Your task to perform on an android device: Go to internet settings Image 0: 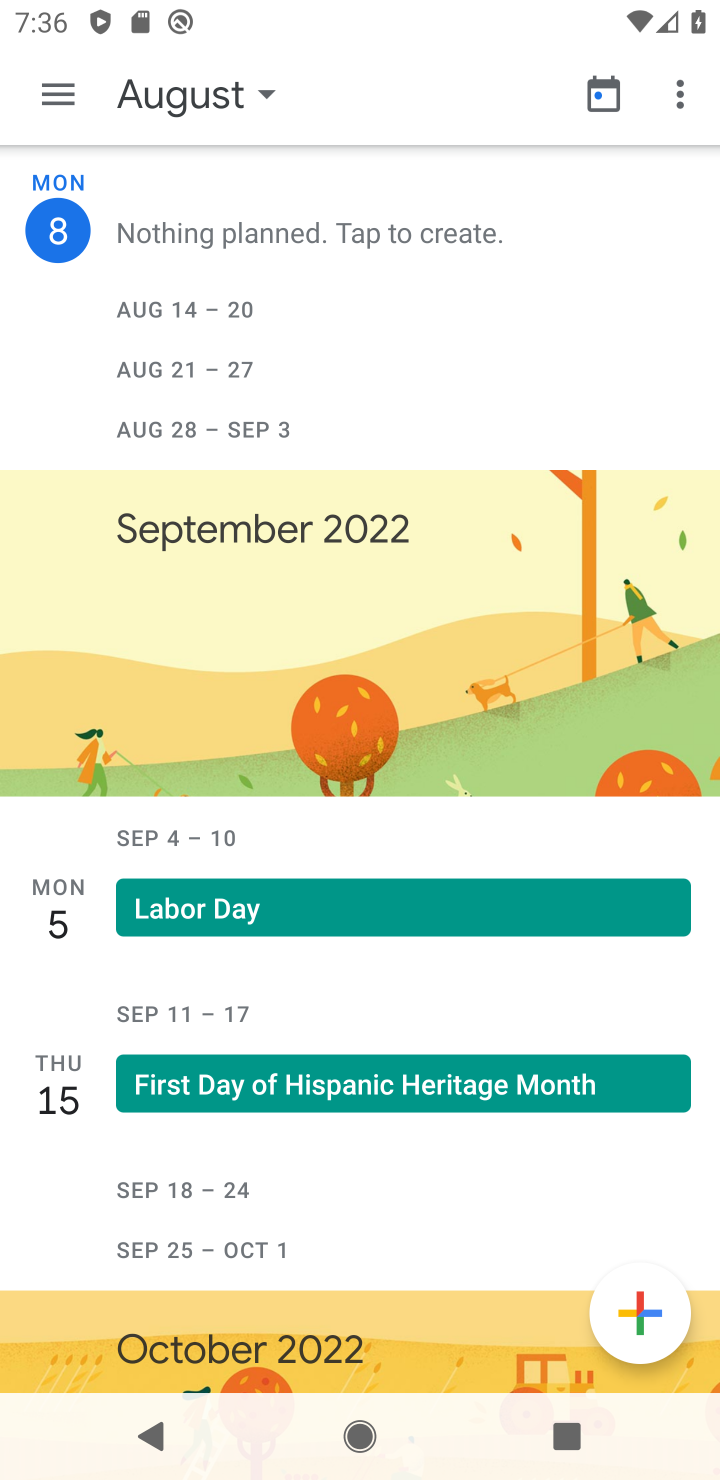
Step 0: press home button
Your task to perform on an android device: Go to internet settings Image 1: 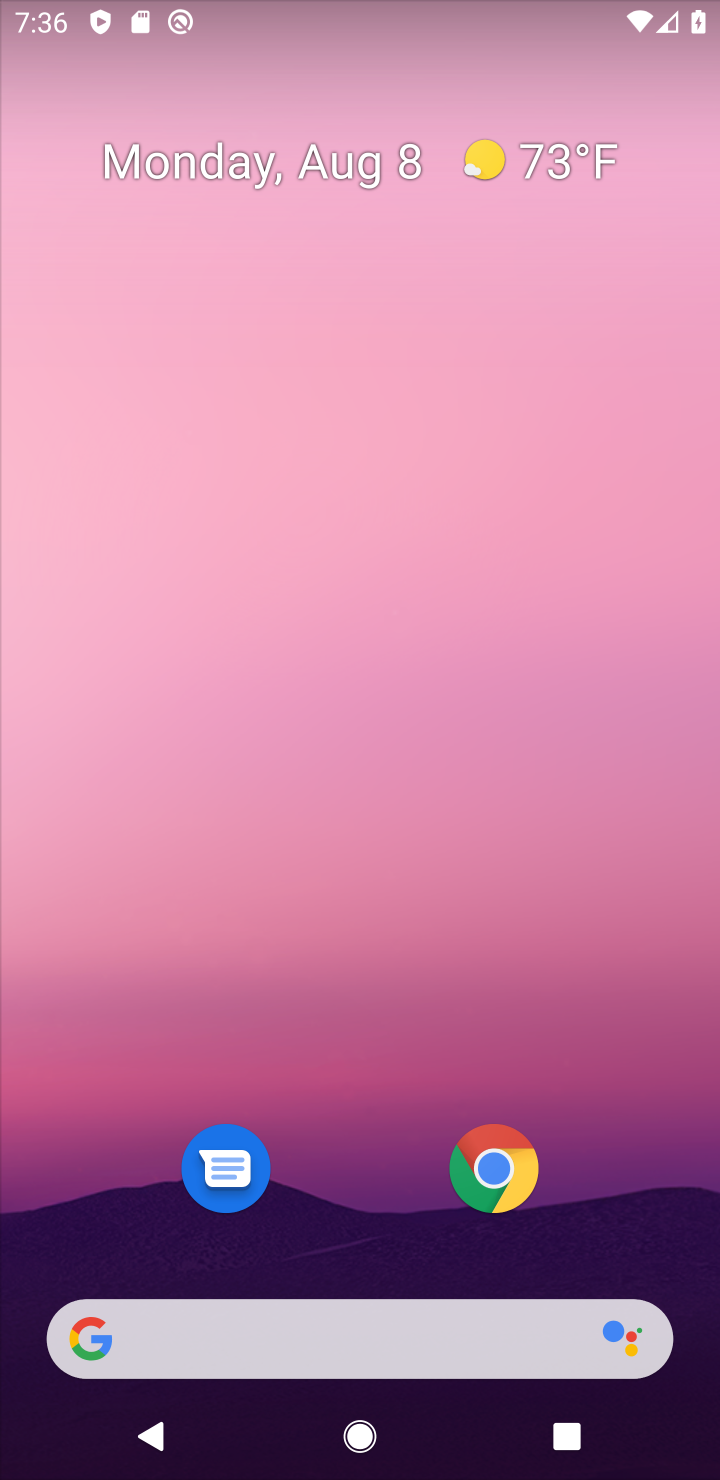
Step 1: drag from (301, 1331) to (506, 63)
Your task to perform on an android device: Go to internet settings Image 2: 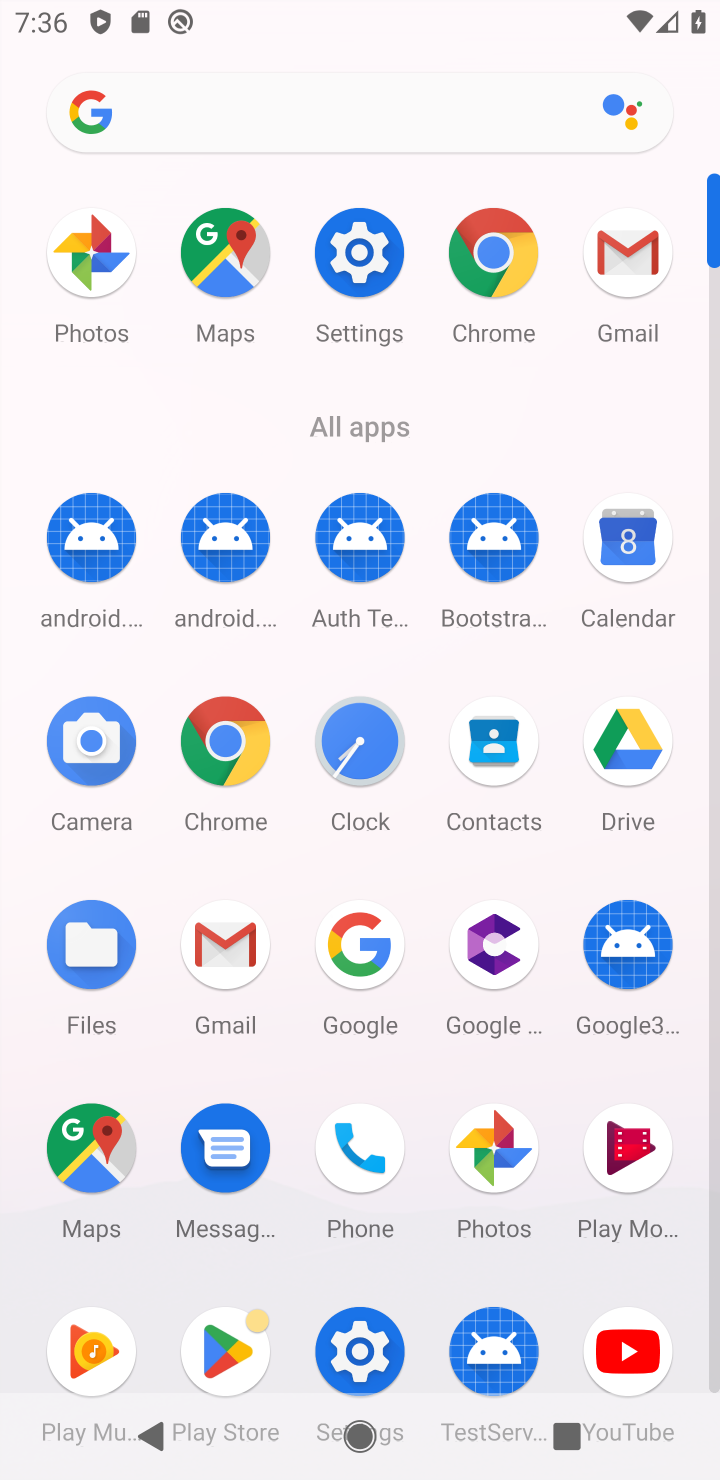
Step 2: click (352, 245)
Your task to perform on an android device: Go to internet settings Image 3: 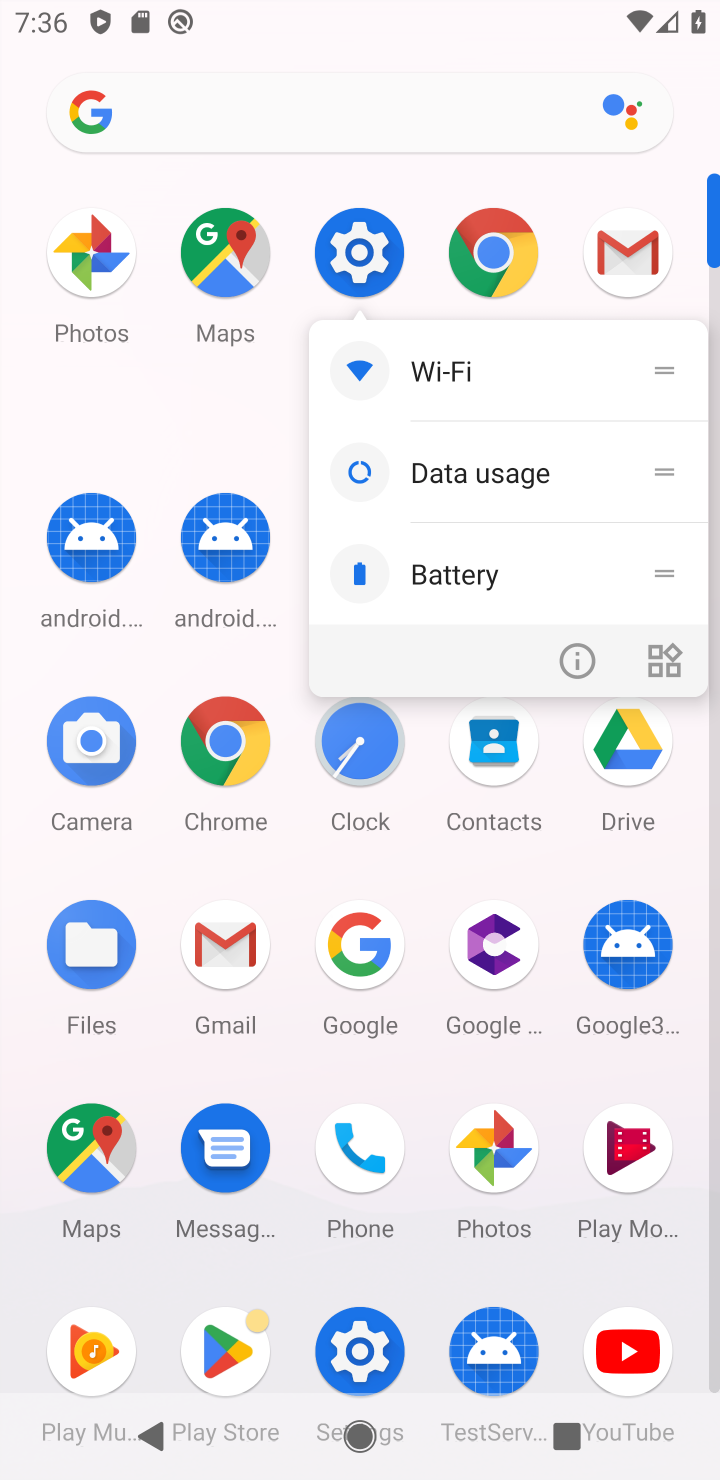
Step 3: click (359, 248)
Your task to perform on an android device: Go to internet settings Image 4: 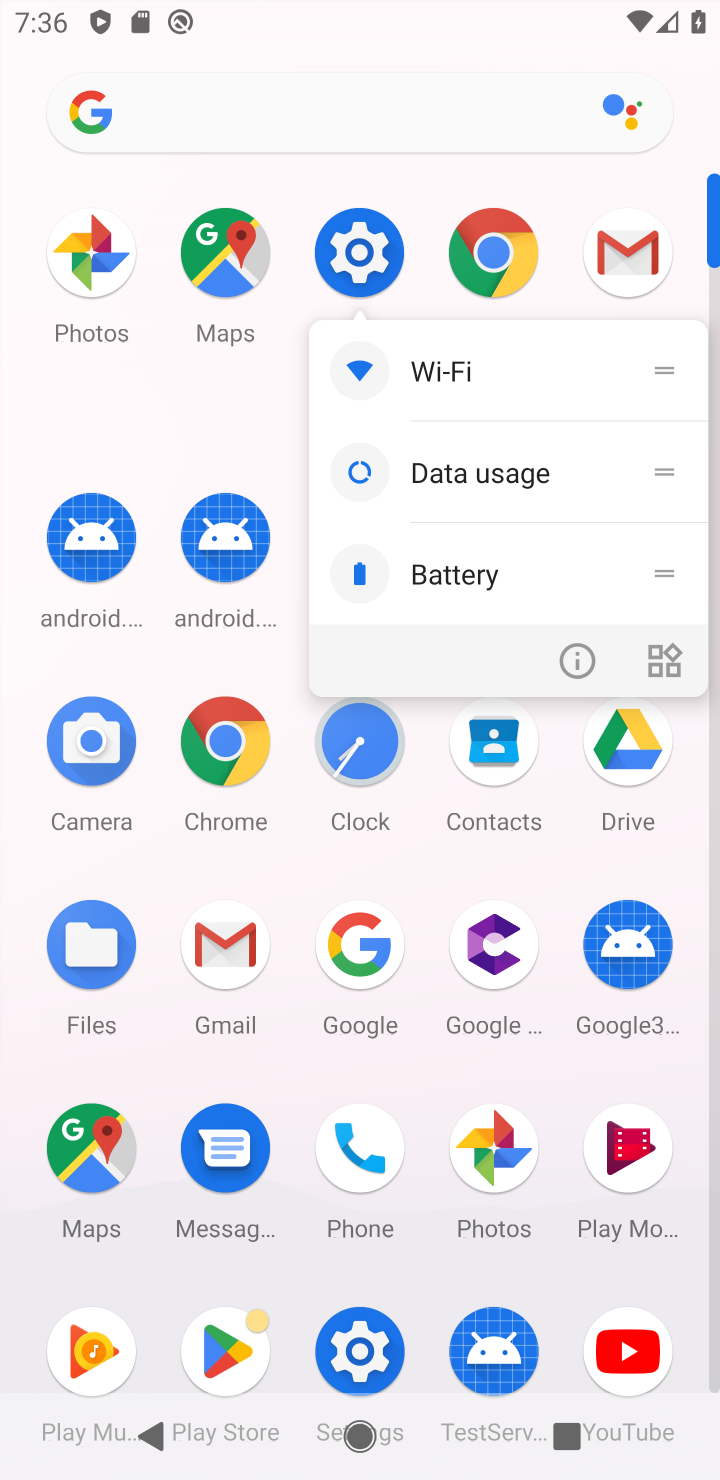
Step 4: click (359, 248)
Your task to perform on an android device: Go to internet settings Image 5: 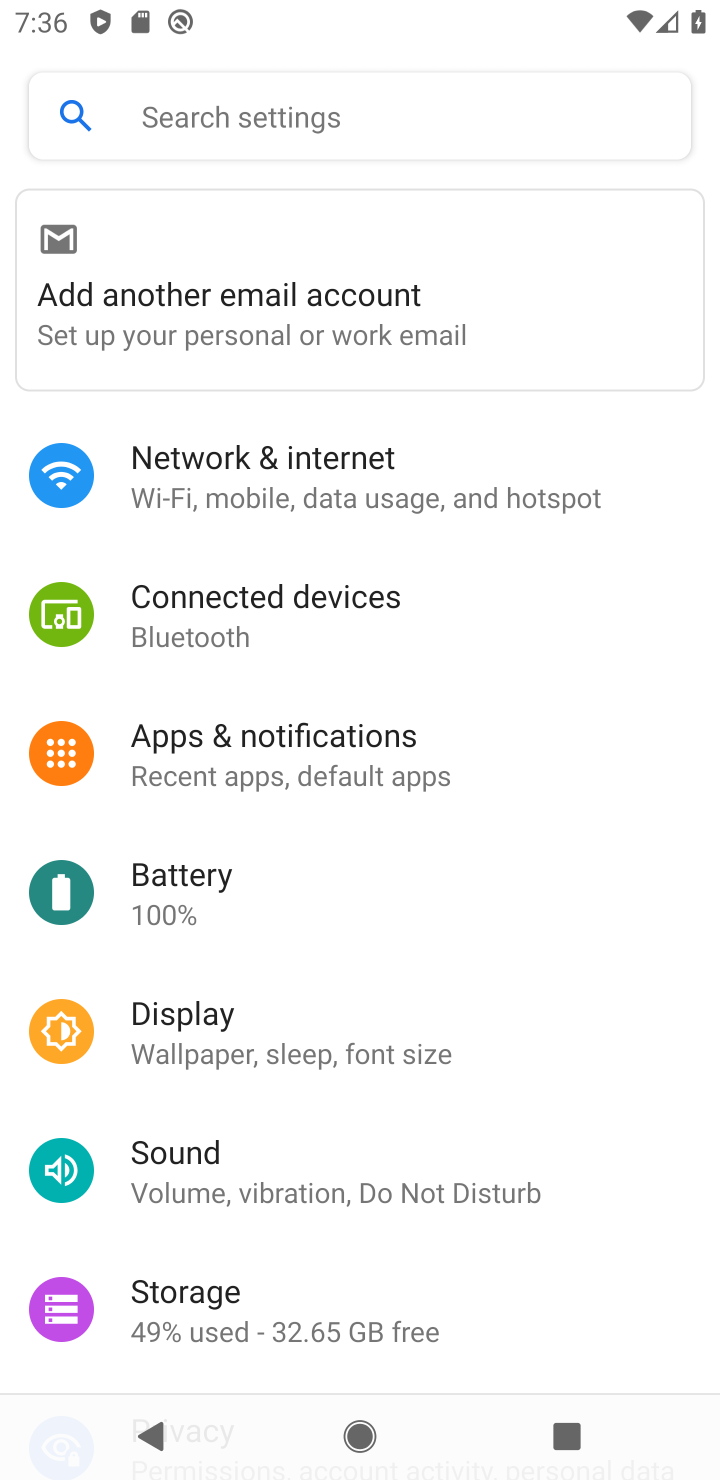
Step 5: click (340, 492)
Your task to perform on an android device: Go to internet settings Image 6: 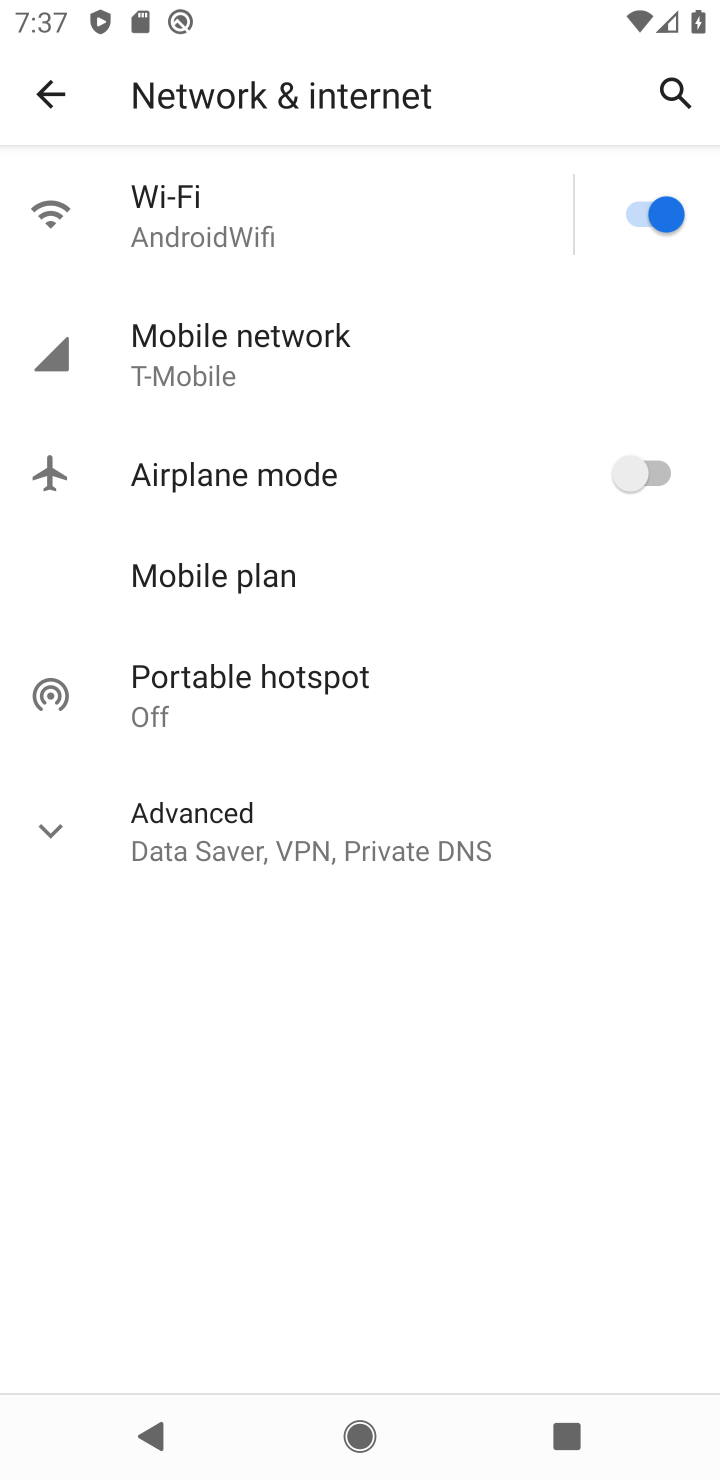
Step 6: task complete